Your task to perform on an android device: Open Google Image 0: 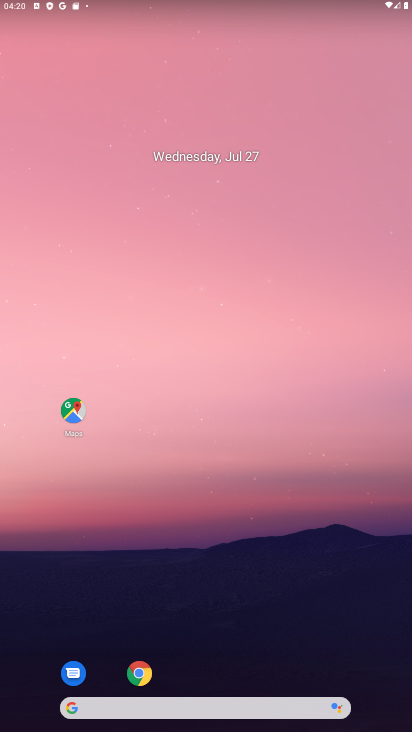
Step 0: click (139, 673)
Your task to perform on an android device: Open Google Image 1: 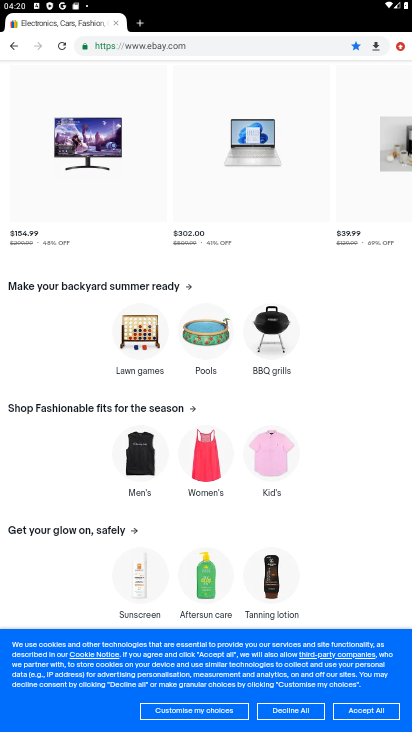
Step 1: task complete